Your task to perform on an android device: Open settings Image 0: 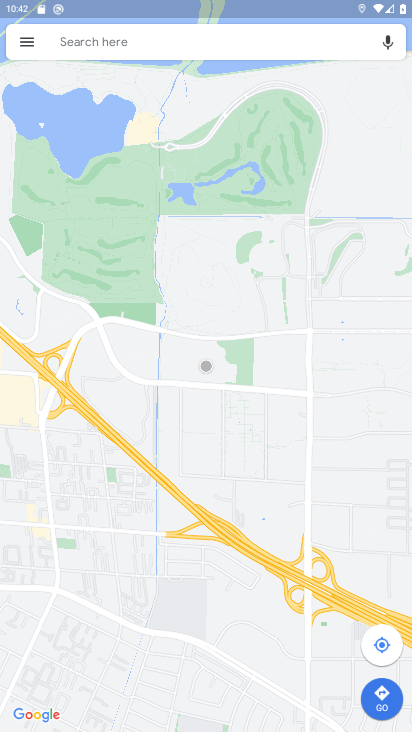
Step 0: press home button
Your task to perform on an android device: Open settings Image 1: 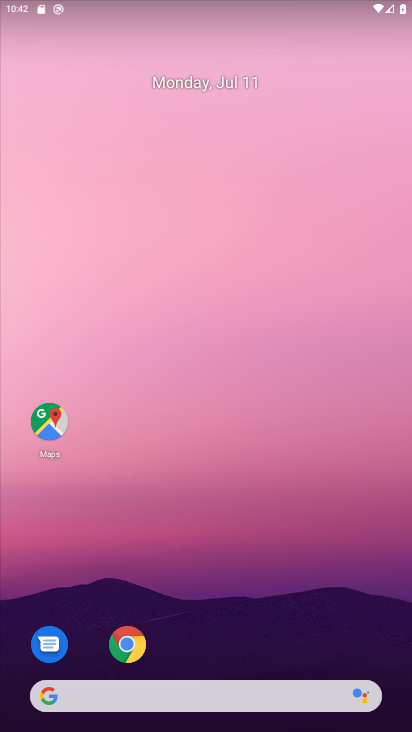
Step 1: drag from (210, 598) to (138, 34)
Your task to perform on an android device: Open settings Image 2: 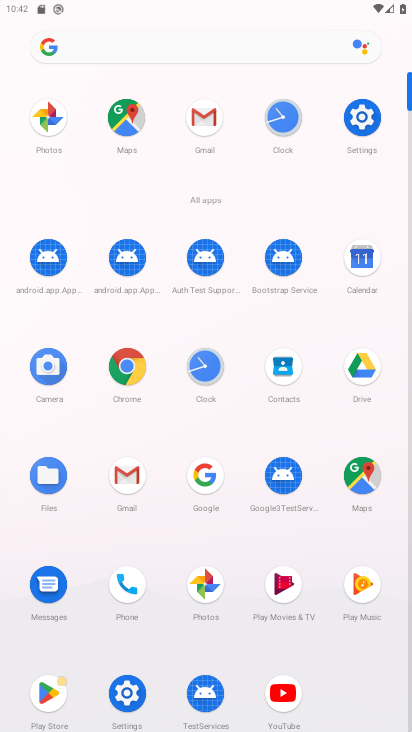
Step 2: click (352, 116)
Your task to perform on an android device: Open settings Image 3: 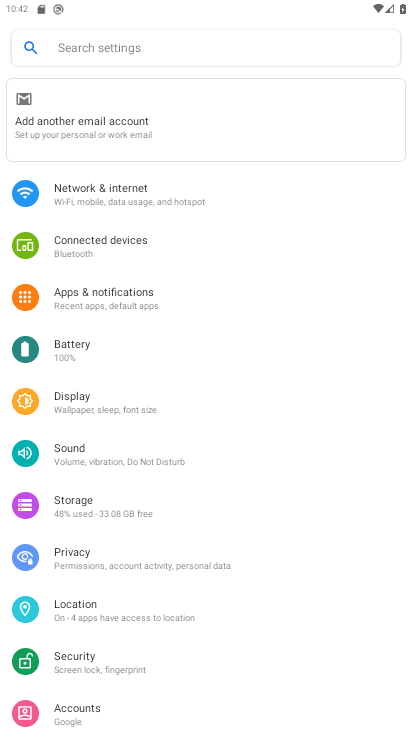
Step 3: task complete